Your task to perform on an android device: Search for Italian restaurants on Maps Image 0: 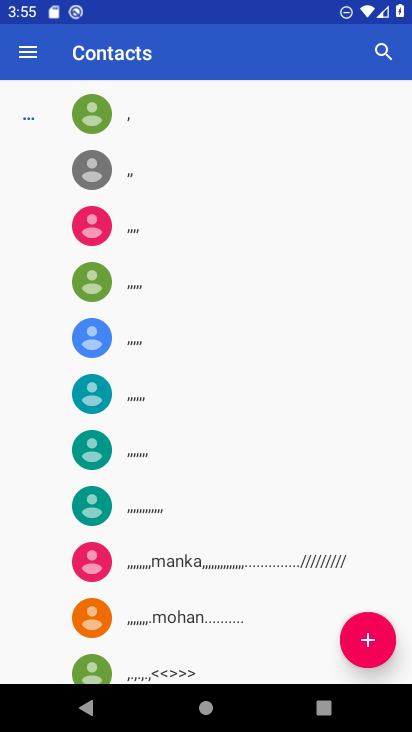
Step 0: press home button
Your task to perform on an android device: Search for Italian restaurants on Maps Image 1: 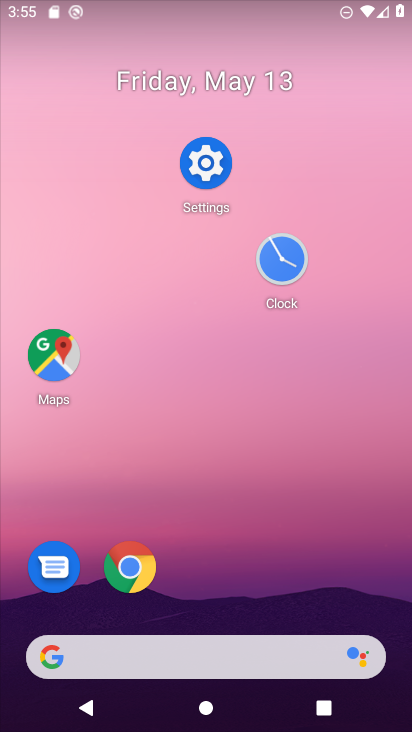
Step 1: click (62, 365)
Your task to perform on an android device: Search for Italian restaurants on Maps Image 2: 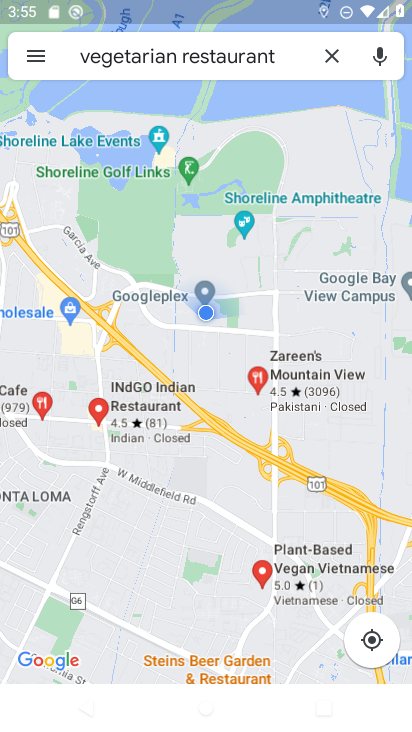
Step 2: click (316, 42)
Your task to perform on an android device: Search for Italian restaurants on Maps Image 3: 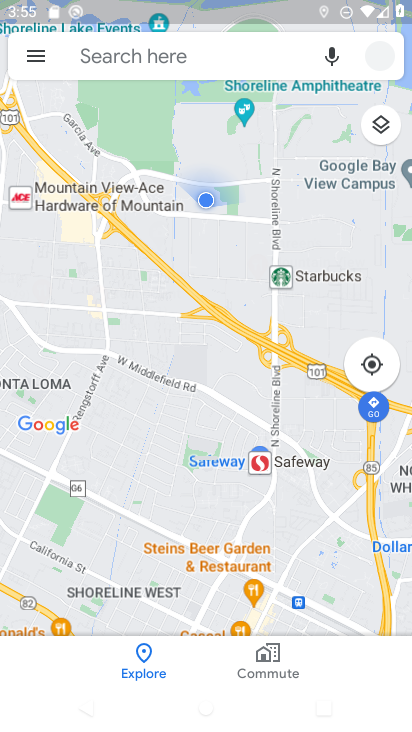
Step 3: click (327, 46)
Your task to perform on an android device: Search for Italian restaurants on Maps Image 4: 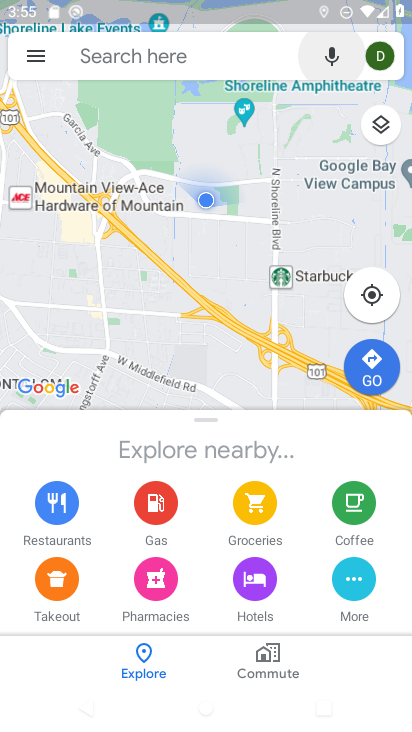
Step 4: click (301, 46)
Your task to perform on an android device: Search for Italian restaurants on Maps Image 5: 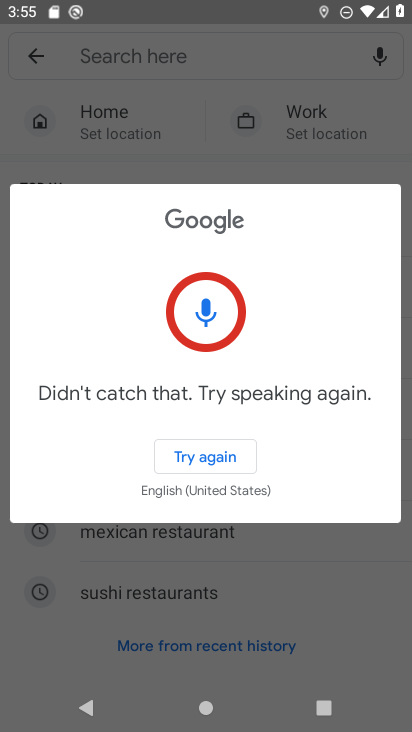
Step 5: click (235, 163)
Your task to perform on an android device: Search for Italian restaurants on Maps Image 6: 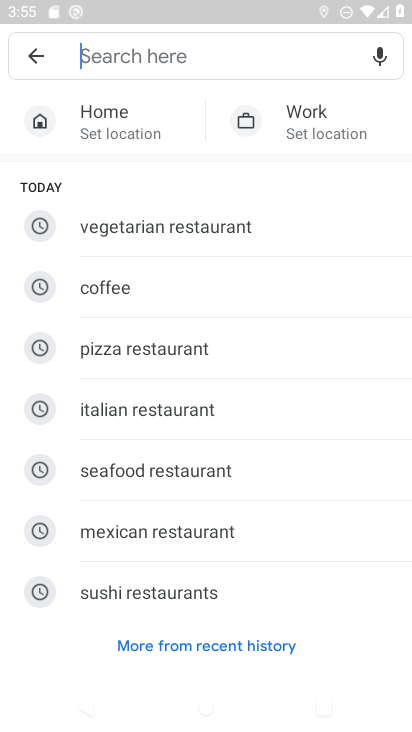
Step 6: click (235, 163)
Your task to perform on an android device: Search for Italian restaurants on Maps Image 7: 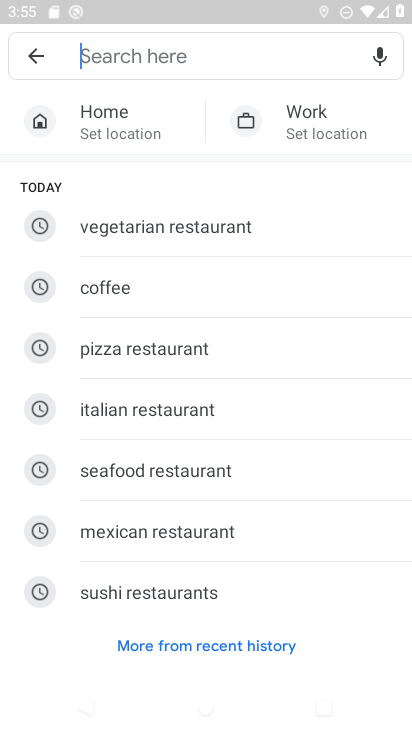
Step 7: click (204, 406)
Your task to perform on an android device: Search for Italian restaurants on Maps Image 8: 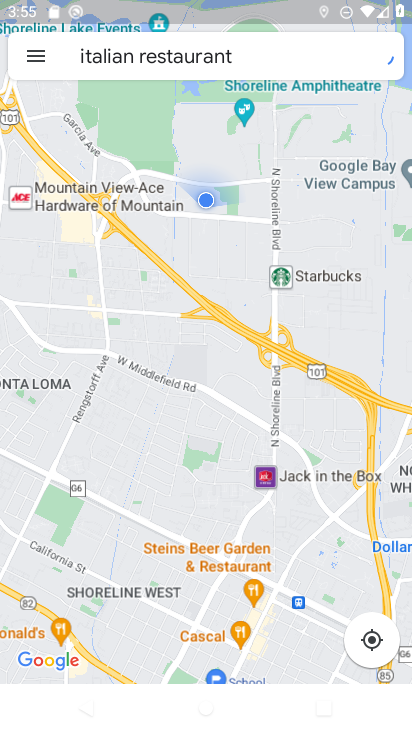
Step 8: task complete